Your task to perform on an android device: Open the stopwatch Image 0: 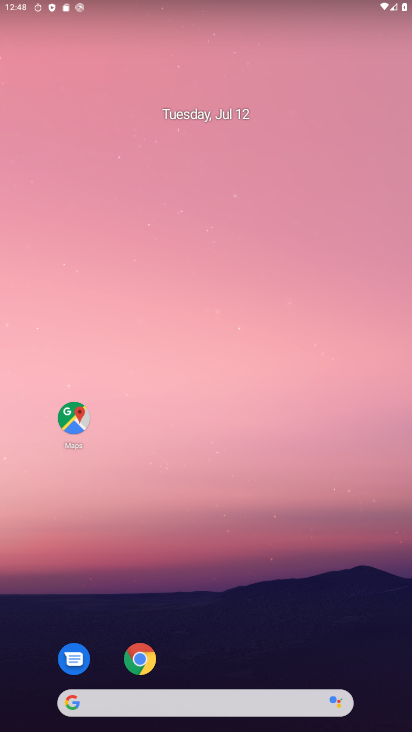
Step 0: drag from (273, 668) to (217, 177)
Your task to perform on an android device: Open the stopwatch Image 1: 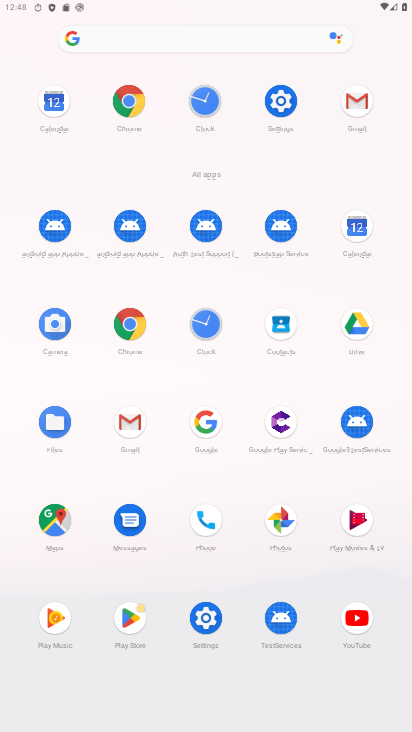
Step 1: click (207, 324)
Your task to perform on an android device: Open the stopwatch Image 2: 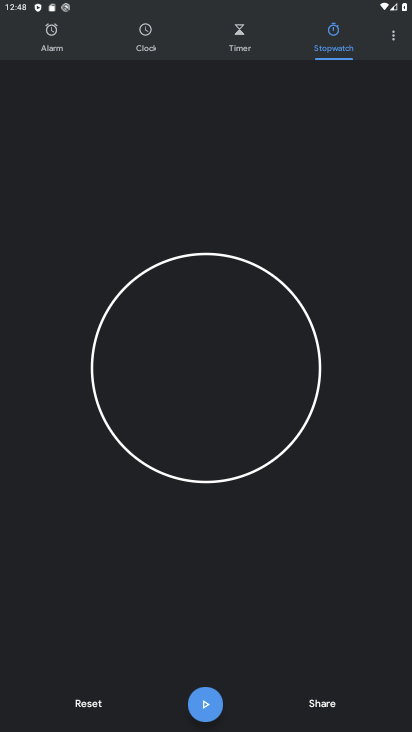
Step 2: task complete